Your task to perform on an android device: change the upload size in google photos Image 0: 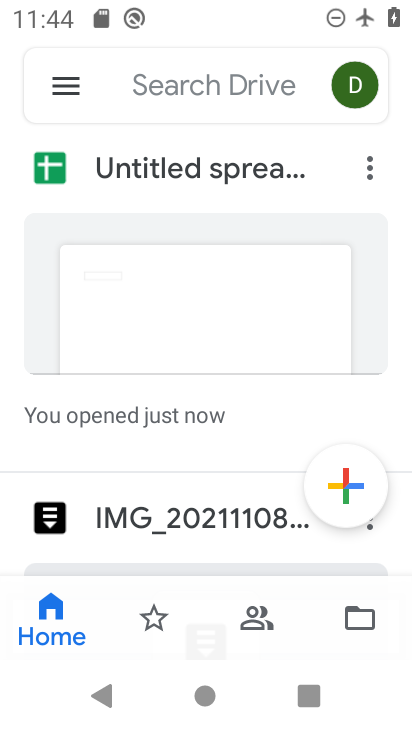
Step 0: press home button
Your task to perform on an android device: change the upload size in google photos Image 1: 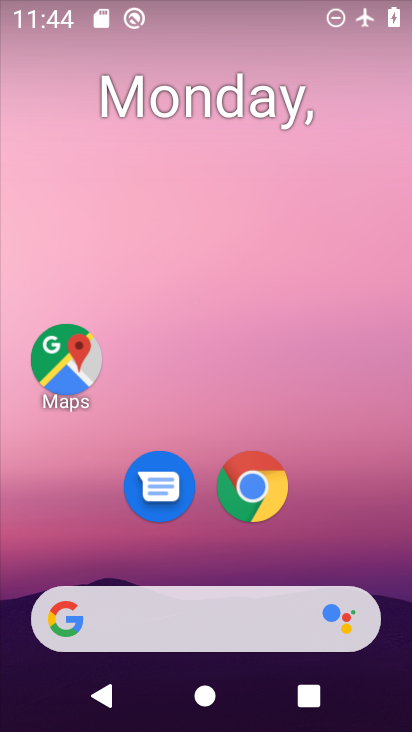
Step 1: drag from (23, 634) to (193, 195)
Your task to perform on an android device: change the upload size in google photos Image 2: 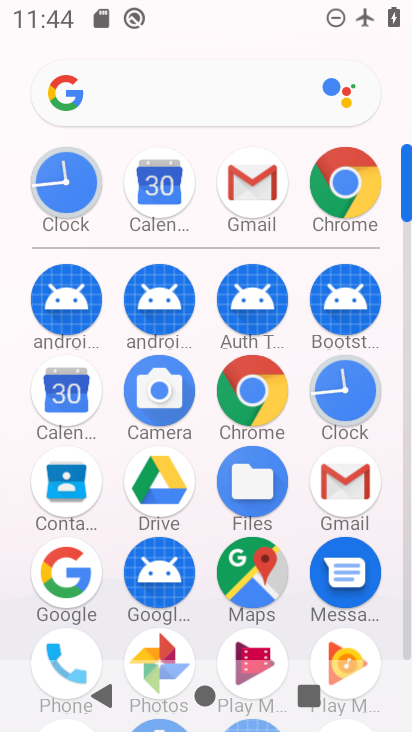
Step 2: drag from (26, 584) to (336, 157)
Your task to perform on an android device: change the upload size in google photos Image 3: 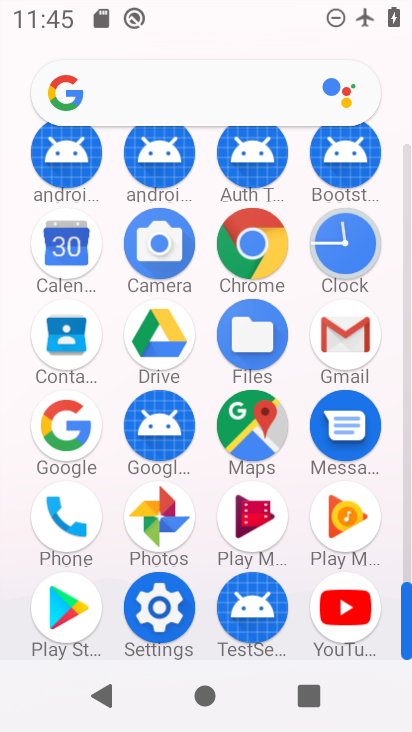
Step 3: click (166, 501)
Your task to perform on an android device: change the upload size in google photos Image 4: 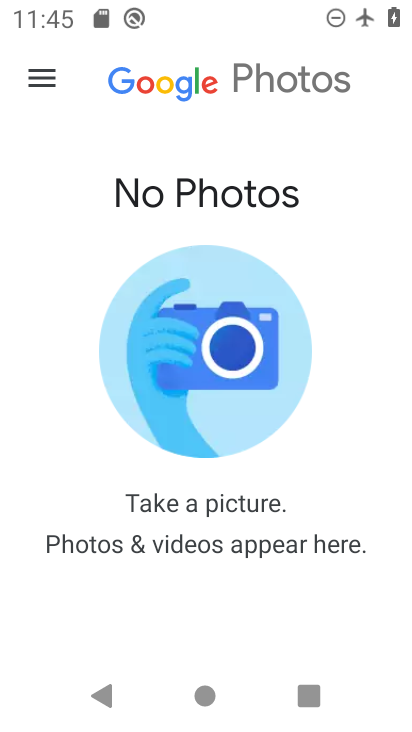
Step 4: click (37, 83)
Your task to perform on an android device: change the upload size in google photos Image 5: 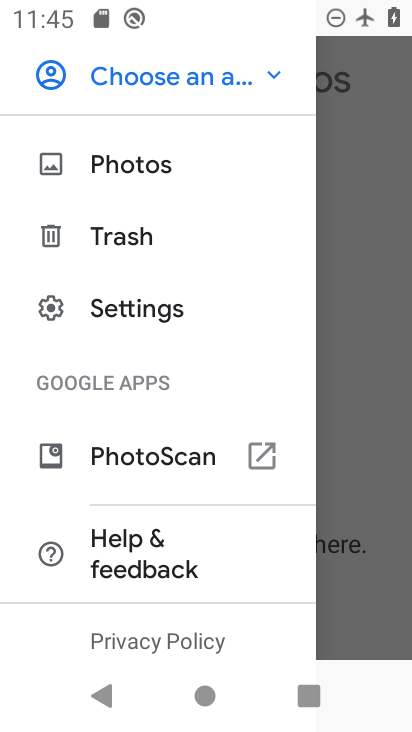
Step 5: click (84, 316)
Your task to perform on an android device: change the upload size in google photos Image 6: 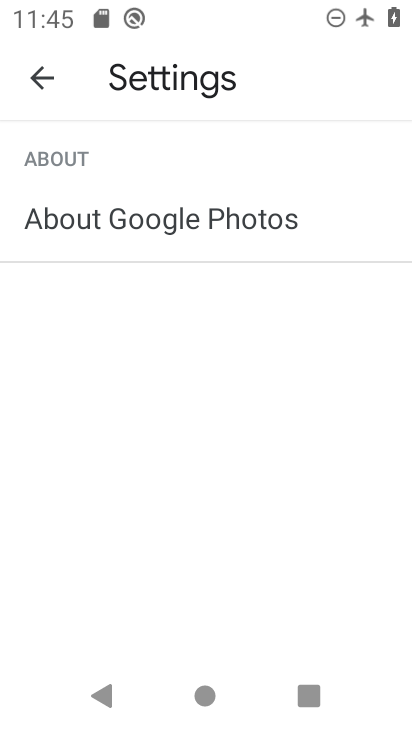
Step 6: click (49, 75)
Your task to perform on an android device: change the upload size in google photos Image 7: 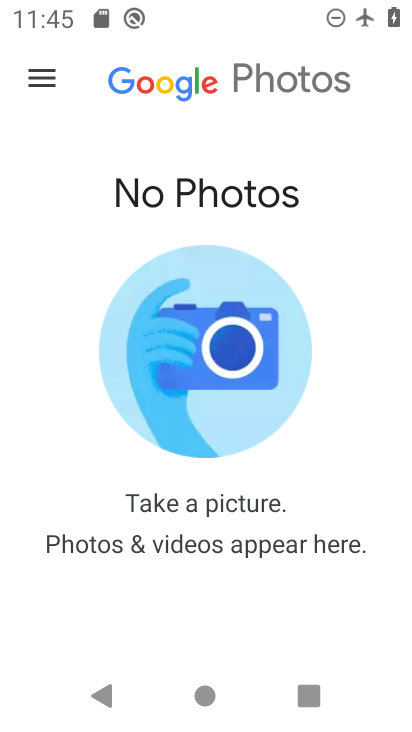
Step 7: click (26, 77)
Your task to perform on an android device: change the upload size in google photos Image 8: 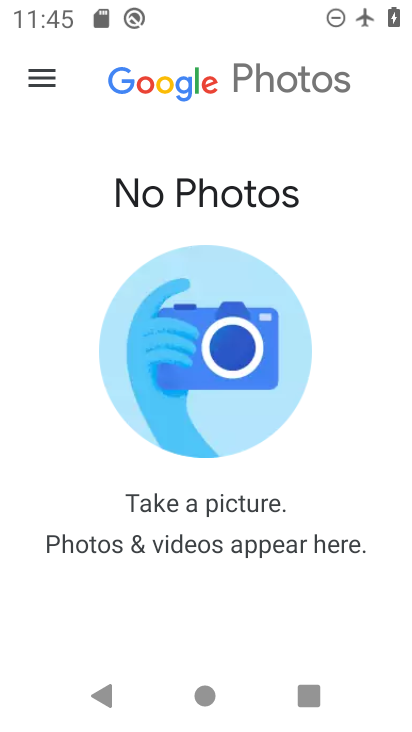
Step 8: click (37, 72)
Your task to perform on an android device: change the upload size in google photos Image 9: 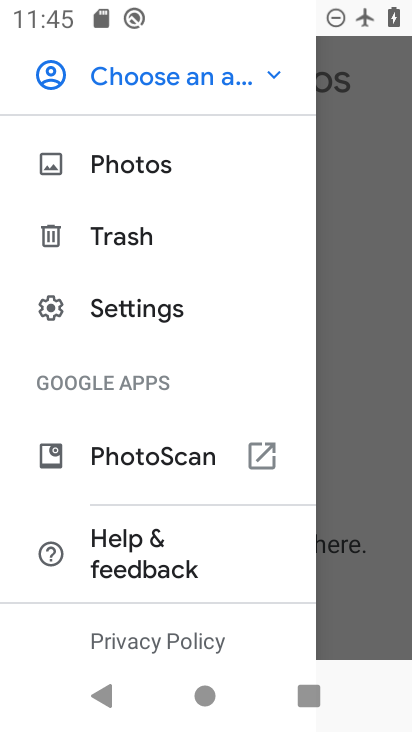
Step 9: click (138, 310)
Your task to perform on an android device: change the upload size in google photos Image 10: 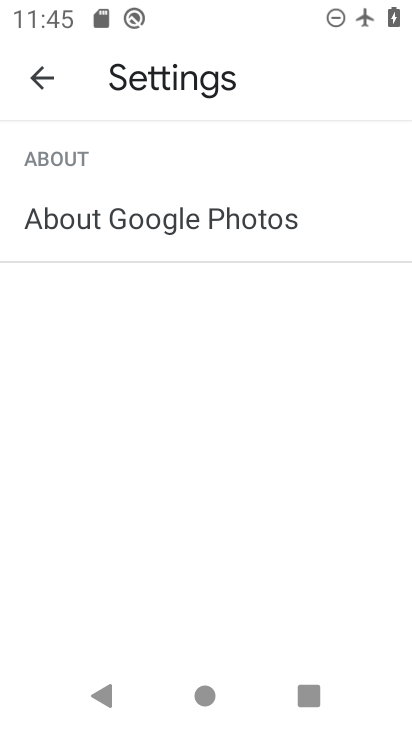
Step 10: click (141, 226)
Your task to perform on an android device: change the upload size in google photos Image 11: 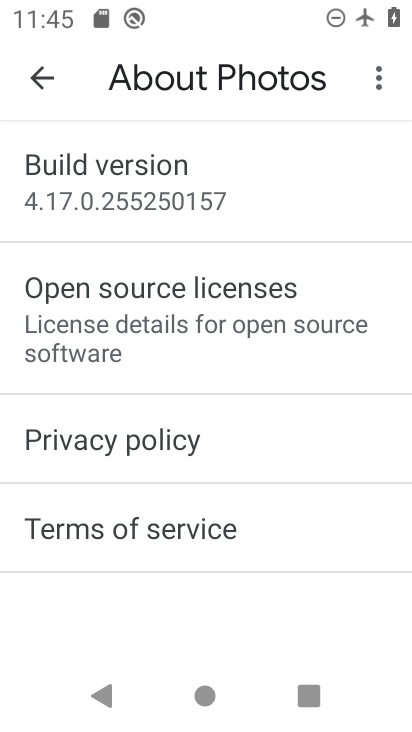
Step 11: task complete